Your task to perform on an android device: Go to wifi settings Image 0: 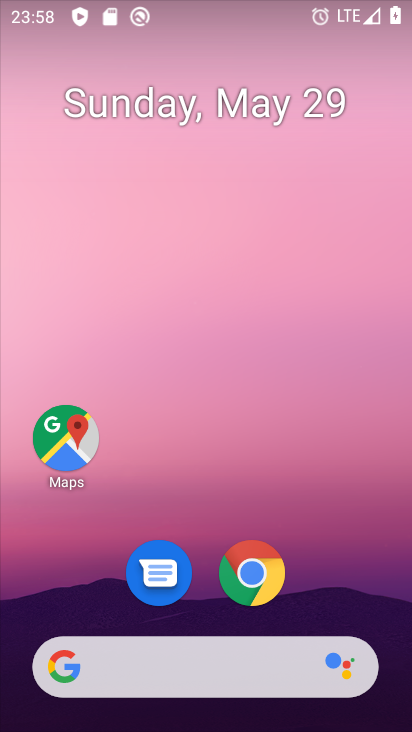
Step 0: drag from (366, 569) to (245, 54)
Your task to perform on an android device: Go to wifi settings Image 1: 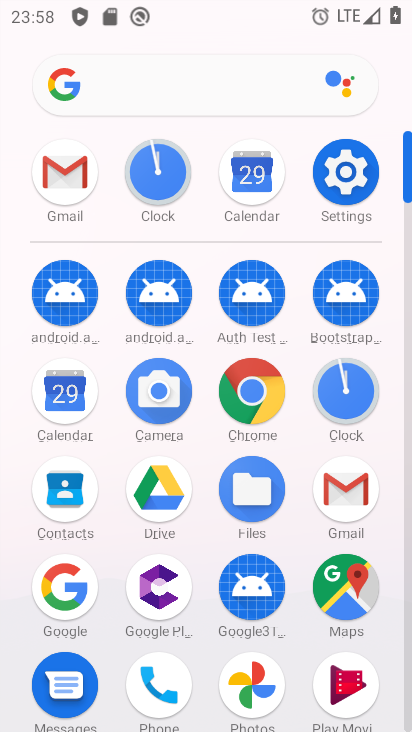
Step 1: click (356, 171)
Your task to perform on an android device: Go to wifi settings Image 2: 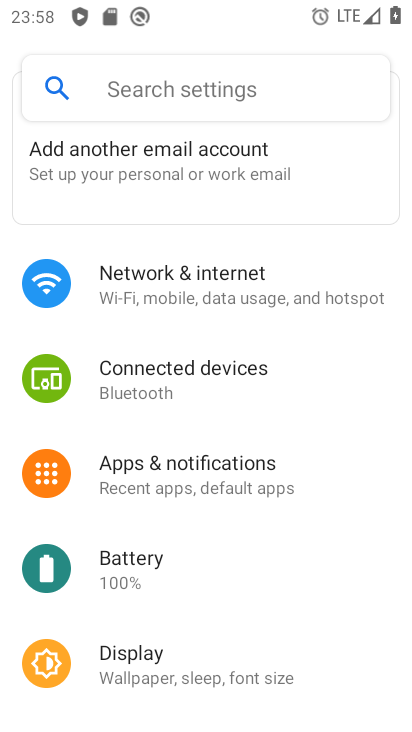
Step 2: click (231, 293)
Your task to perform on an android device: Go to wifi settings Image 3: 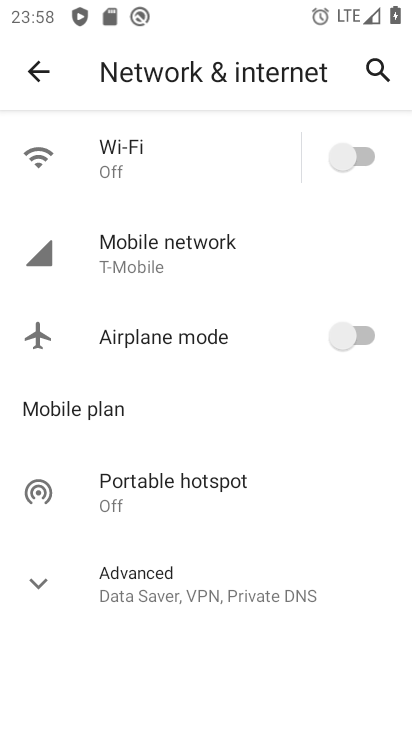
Step 3: click (171, 166)
Your task to perform on an android device: Go to wifi settings Image 4: 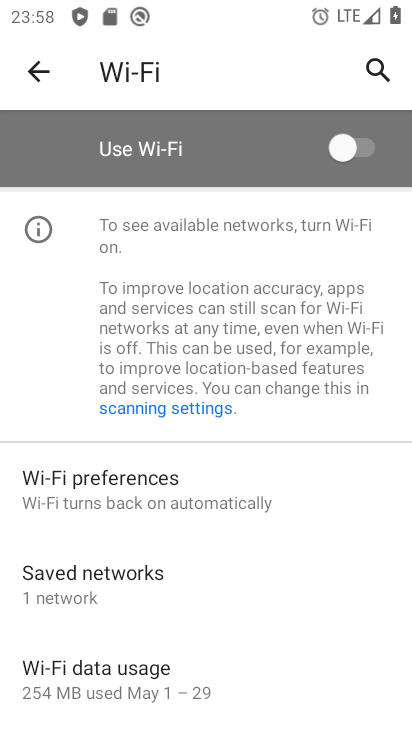
Step 4: task complete